Your task to perform on an android device: change notifications settings Image 0: 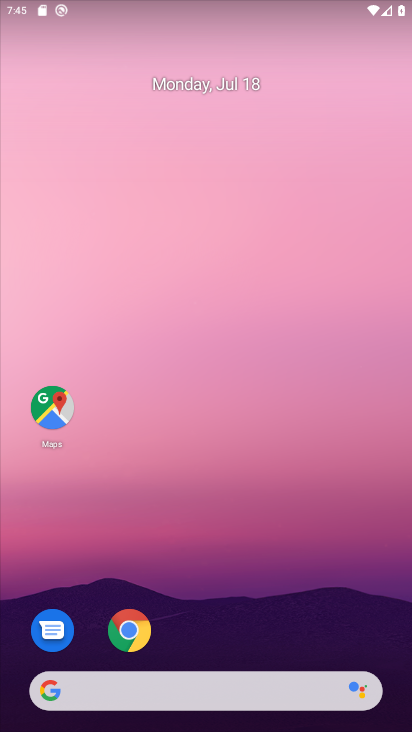
Step 0: drag from (257, 673) to (265, 269)
Your task to perform on an android device: change notifications settings Image 1: 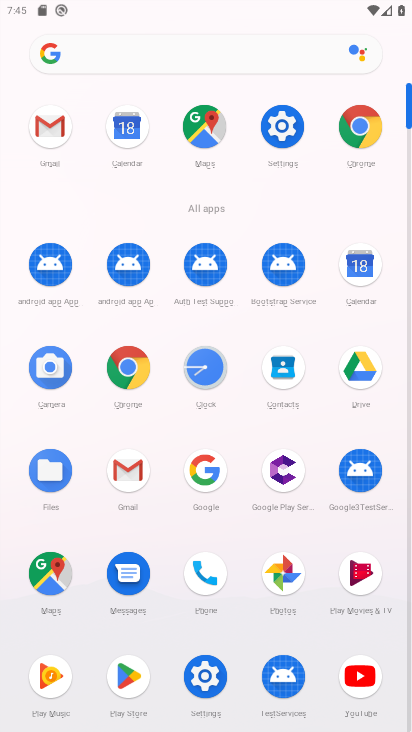
Step 1: click (280, 126)
Your task to perform on an android device: change notifications settings Image 2: 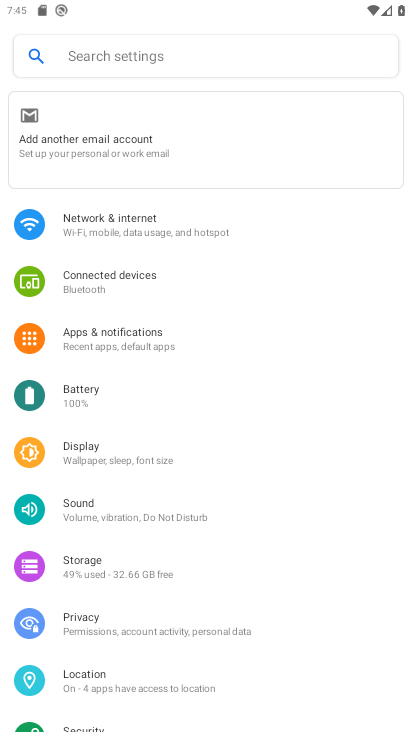
Step 2: click (172, 339)
Your task to perform on an android device: change notifications settings Image 3: 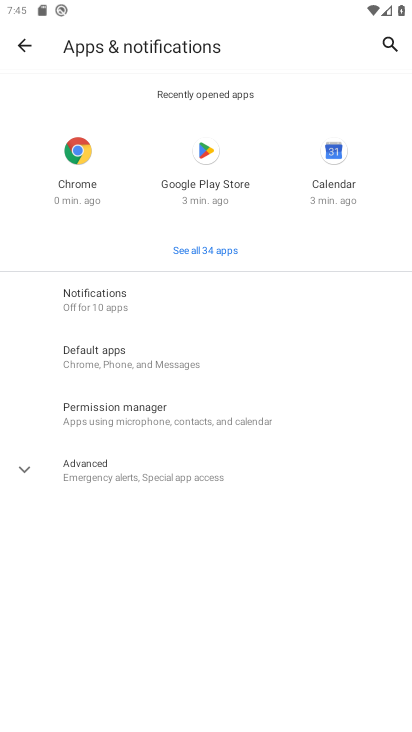
Step 3: click (119, 299)
Your task to perform on an android device: change notifications settings Image 4: 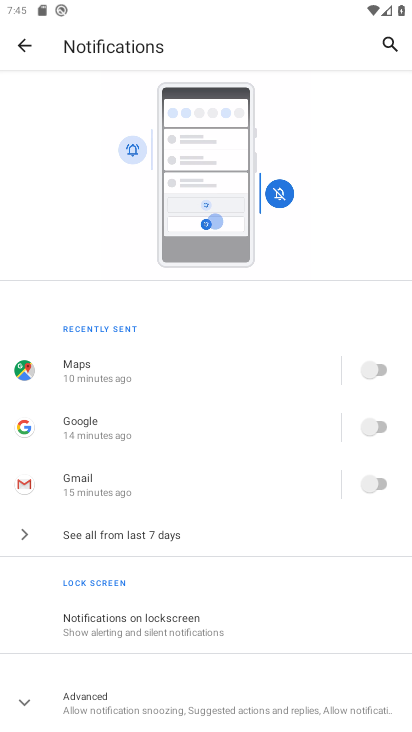
Step 4: click (180, 522)
Your task to perform on an android device: change notifications settings Image 5: 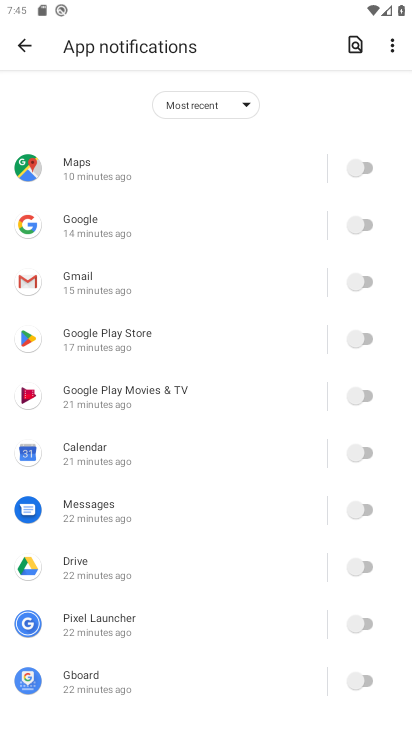
Step 5: drag from (125, 581) to (184, 380)
Your task to perform on an android device: change notifications settings Image 6: 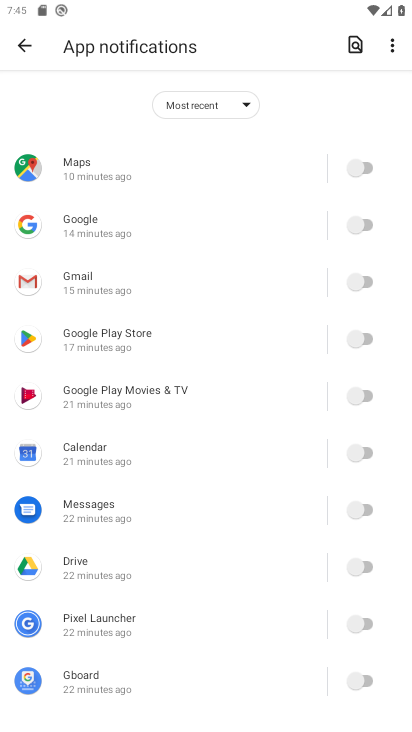
Step 6: click (354, 156)
Your task to perform on an android device: change notifications settings Image 7: 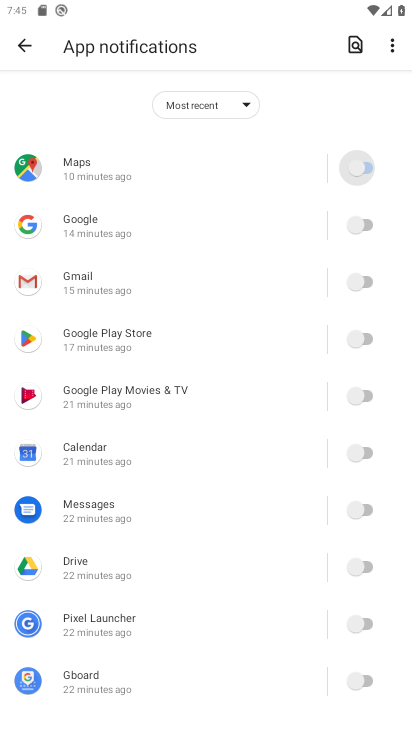
Step 7: click (356, 220)
Your task to perform on an android device: change notifications settings Image 8: 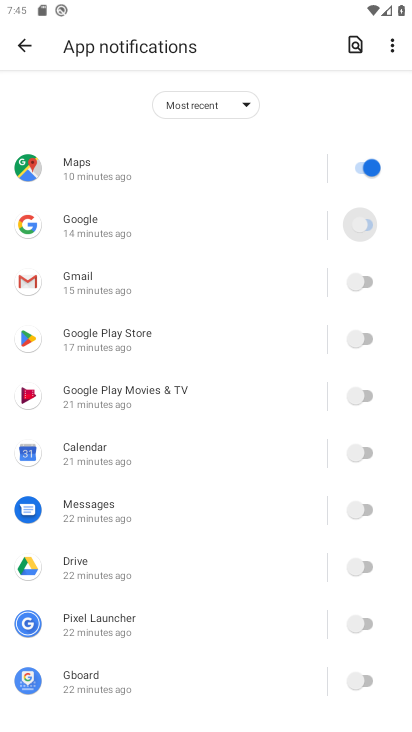
Step 8: click (356, 284)
Your task to perform on an android device: change notifications settings Image 9: 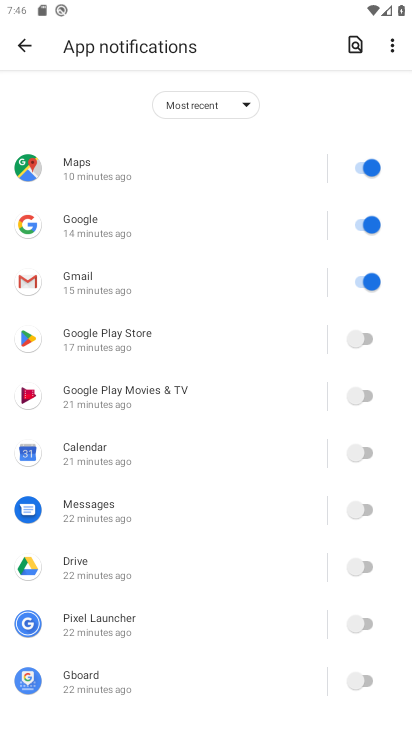
Step 9: click (354, 342)
Your task to perform on an android device: change notifications settings Image 10: 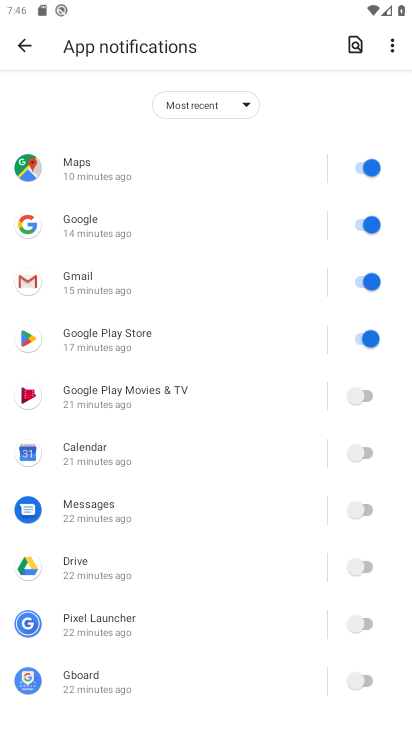
Step 10: click (352, 376)
Your task to perform on an android device: change notifications settings Image 11: 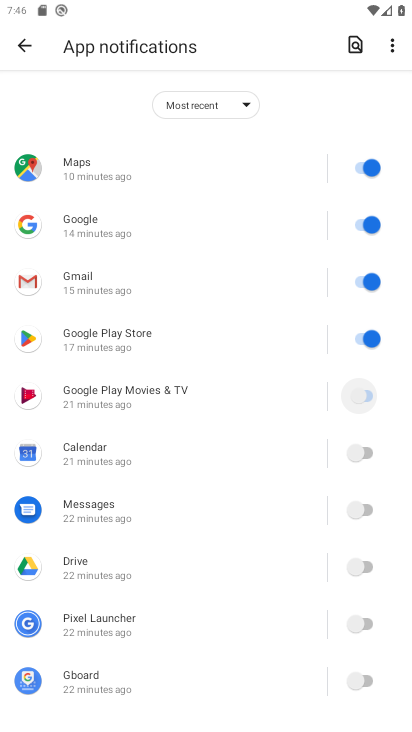
Step 11: click (352, 376)
Your task to perform on an android device: change notifications settings Image 12: 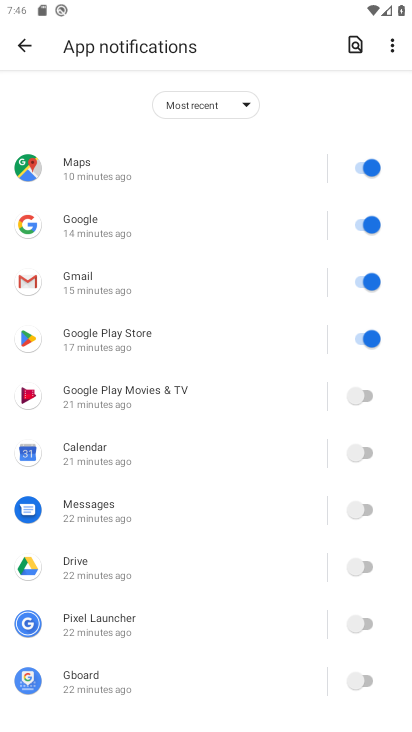
Step 12: click (360, 442)
Your task to perform on an android device: change notifications settings Image 13: 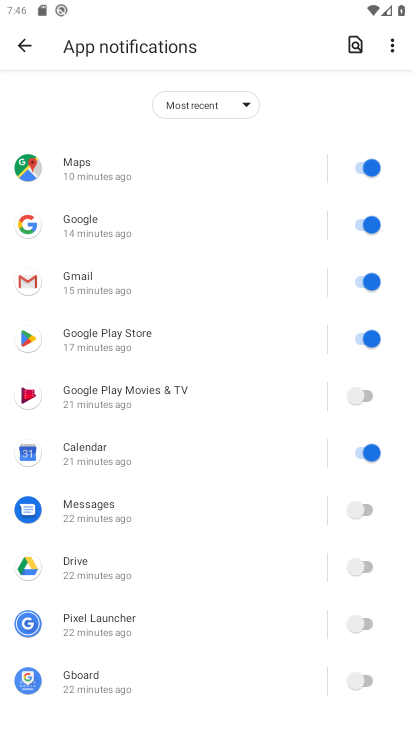
Step 13: click (362, 379)
Your task to perform on an android device: change notifications settings Image 14: 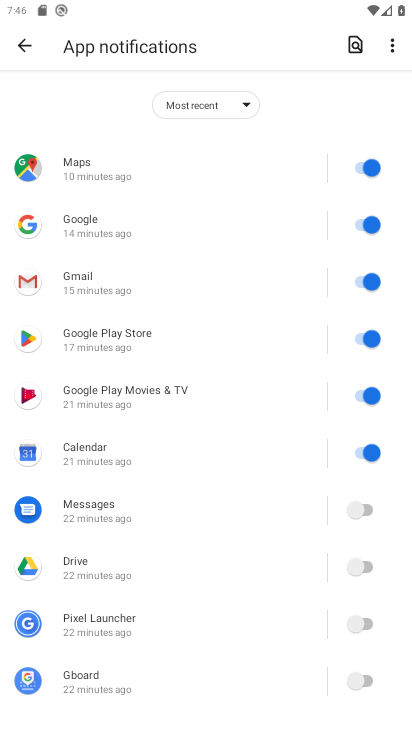
Step 14: click (371, 505)
Your task to perform on an android device: change notifications settings Image 15: 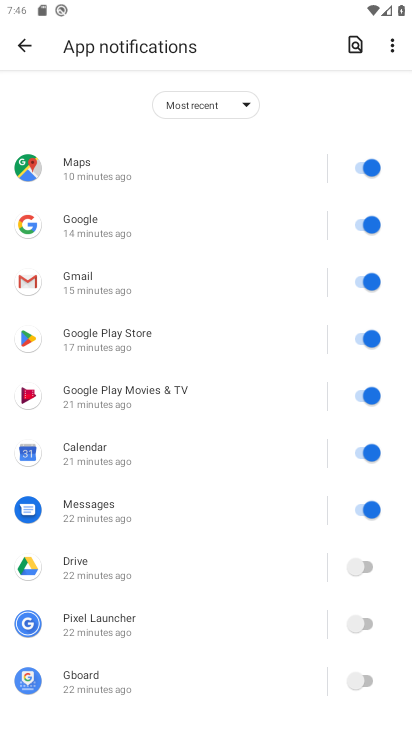
Step 15: click (357, 553)
Your task to perform on an android device: change notifications settings Image 16: 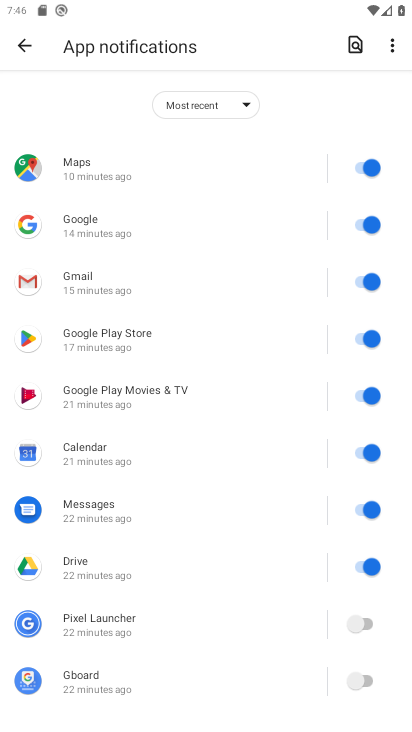
Step 16: click (357, 608)
Your task to perform on an android device: change notifications settings Image 17: 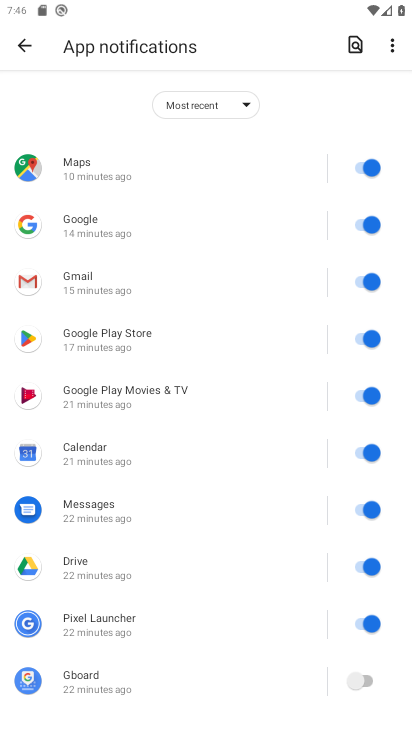
Step 17: click (362, 676)
Your task to perform on an android device: change notifications settings Image 18: 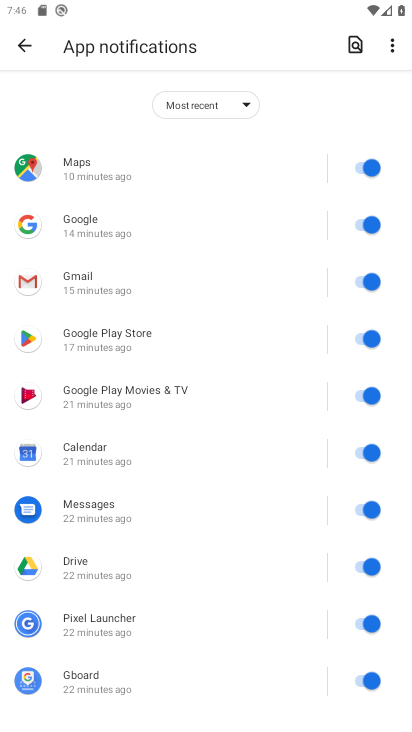
Step 18: task complete